Your task to perform on an android device: Open the stopwatch Image 0: 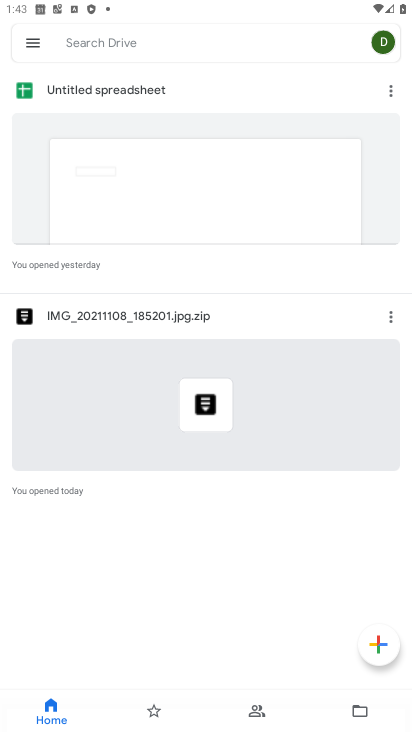
Step 0: press home button
Your task to perform on an android device: Open the stopwatch Image 1: 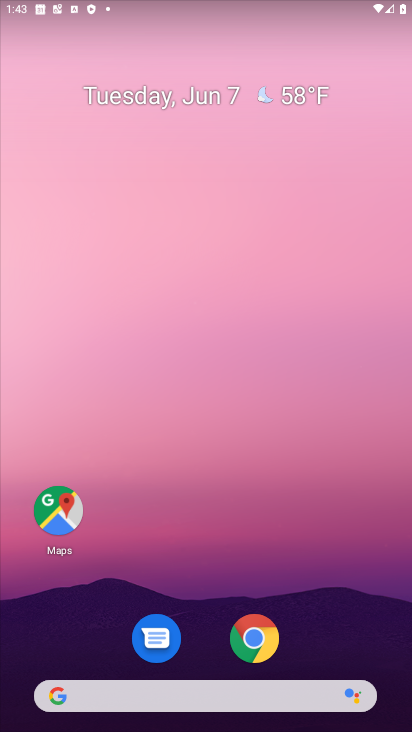
Step 1: drag from (207, 403) to (227, 282)
Your task to perform on an android device: Open the stopwatch Image 2: 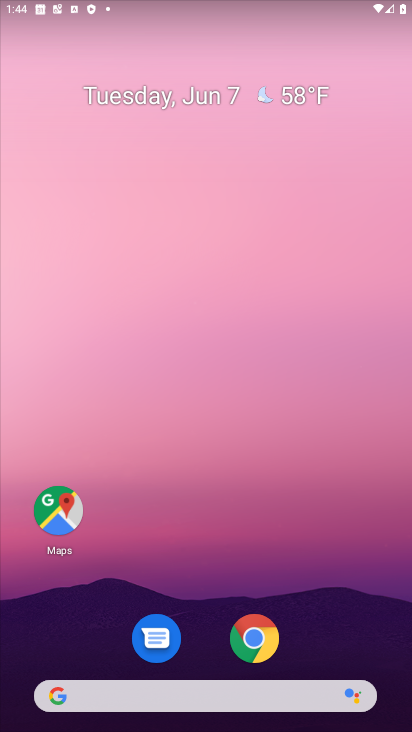
Step 2: drag from (213, 656) to (275, 264)
Your task to perform on an android device: Open the stopwatch Image 3: 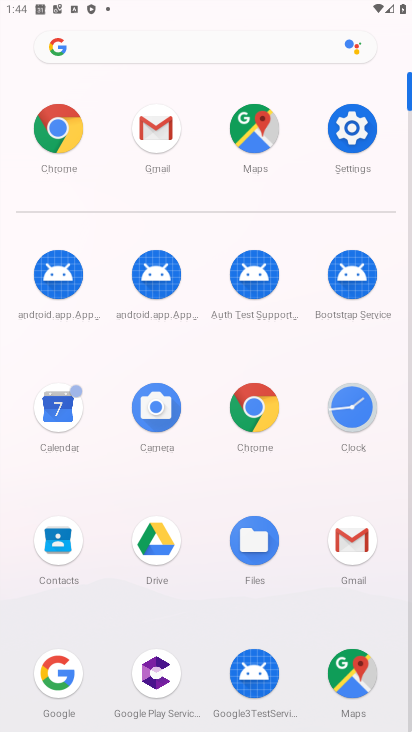
Step 3: click (345, 413)
Your task to perform on an android device: Open the stopwatch Image 4: 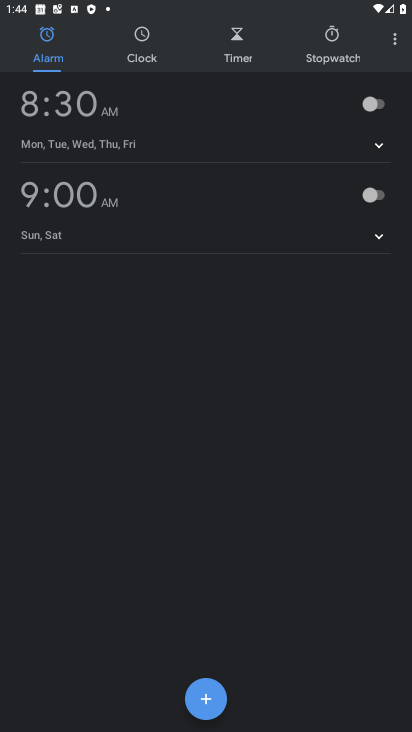
Step 4: click (369, 58)
Your task to perform on an android device: Open the stopwatch Image 5: 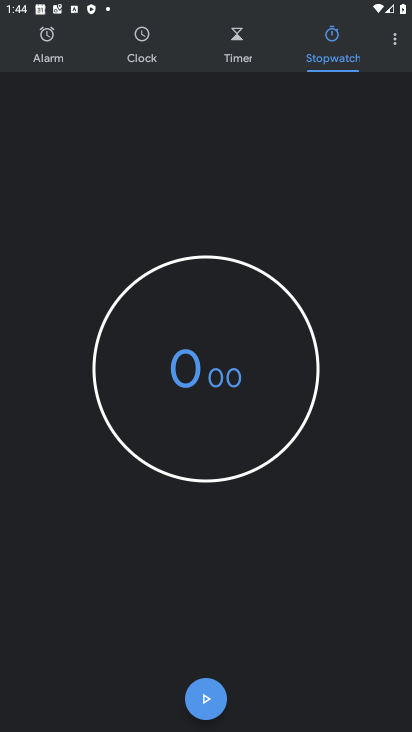
Step 5: task complete